Your task to perform on an android device: Clear the shopping cart on ebay. Add bose soundsport free to the cart on ebay, then select checkout. Image 0: 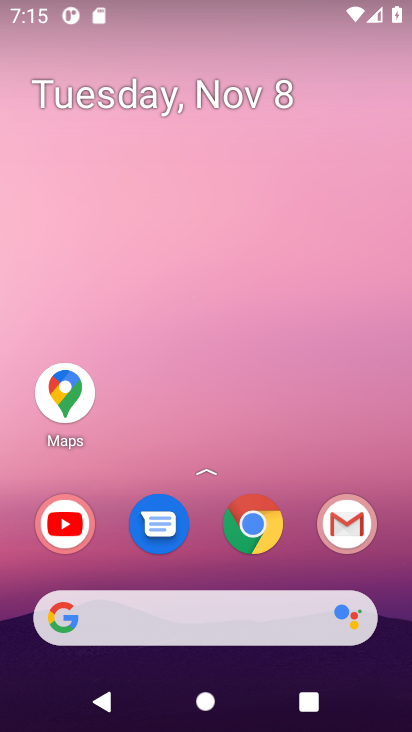
Step 0: click (256, 528)
Your task to perform on an android device: Clear the shopping cart on ebay. Add bose soundsport free to the cart on ebay, then select checkout. Image 1: 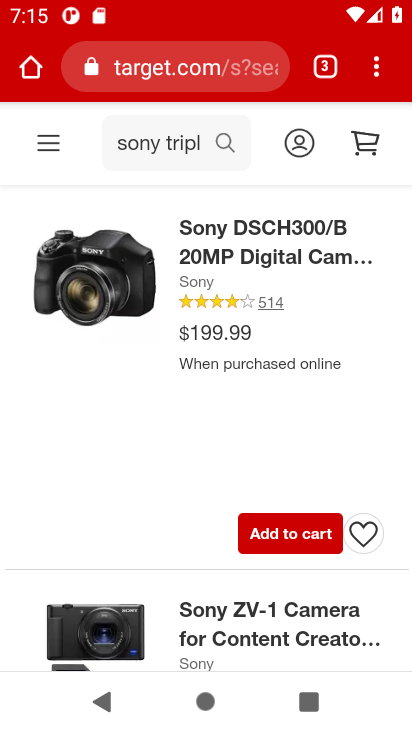
Step 1: click (171, 69)
Your task to perform on an android device: Clear the shopping cart on ebay. Add bose soundsport free to the cart on ebay, then select checkout. Image 2: 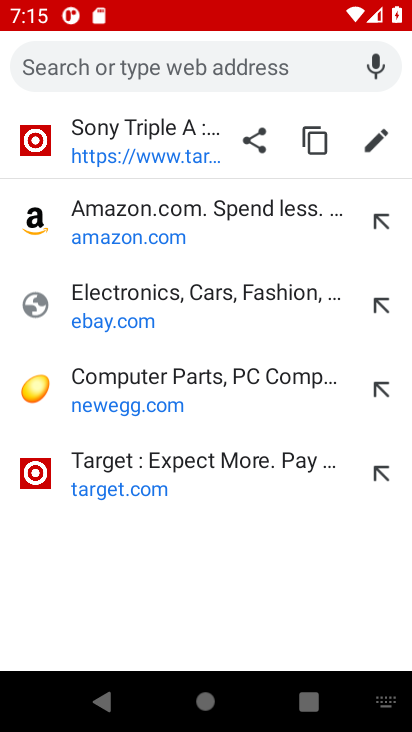
Step 2: click (102, 314)
Your task to perform on an android device: Clear the shopping cart on ebay. Add bose soundsport free to the cart on ebay, then select checkout. Image 3: 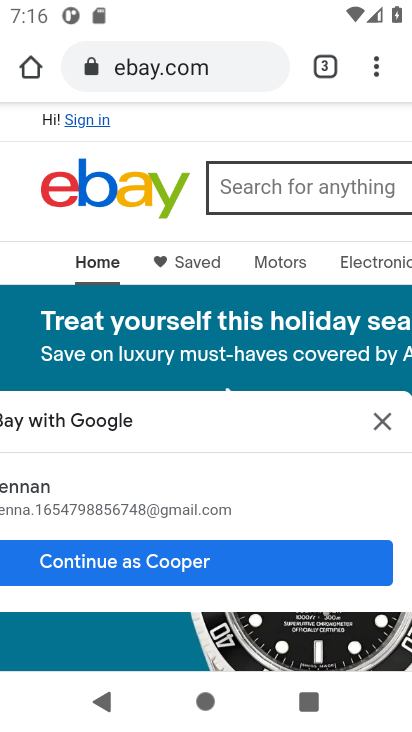
Step 3: drag from (295, 233) to (14, 201)
Your task to perform on an android device: Clear the shopping cart on ebay. Add bose soundsport free to the cart on ebay, then select checkout. Image 4: 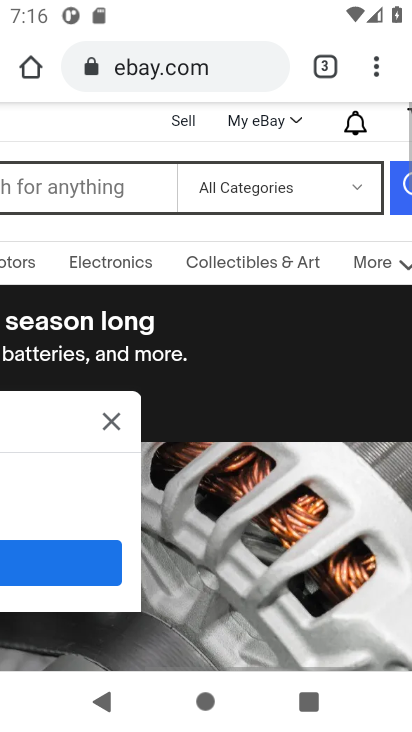
Step 4: drag from (306, 222) to (44, 218)
Your task to perform on an android device: Clear the shopping cart on ebay. Add bose soundsport free to the cart on ebay, then select checkout. Image 5: 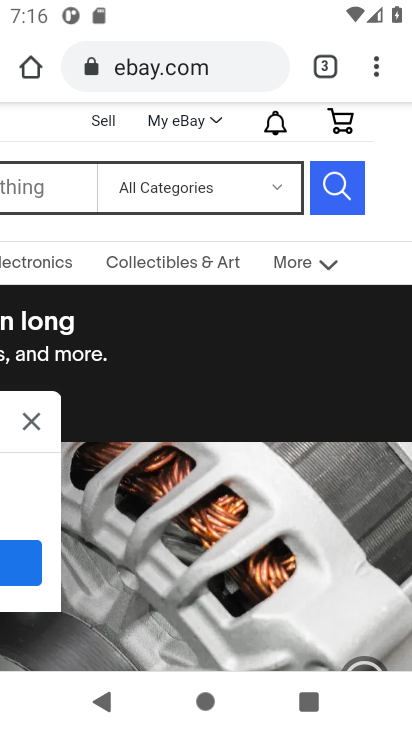
Step 5: click (343, 122)
Your task to perform on an android device: Clear the shopping cart on ebay. Add bose soundsport free to the cart on ebay, then select checkout. Image 6: 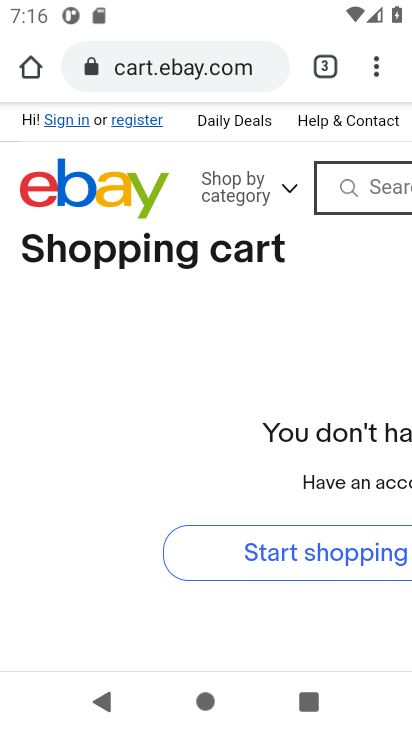
Step 6: drag from (334, 328) to (35, 330)
Your task to perform on an android device: Clear the shopping cart on ebay. Add bose soundsport free to the cart on ebay, then select checkout. Image 7: 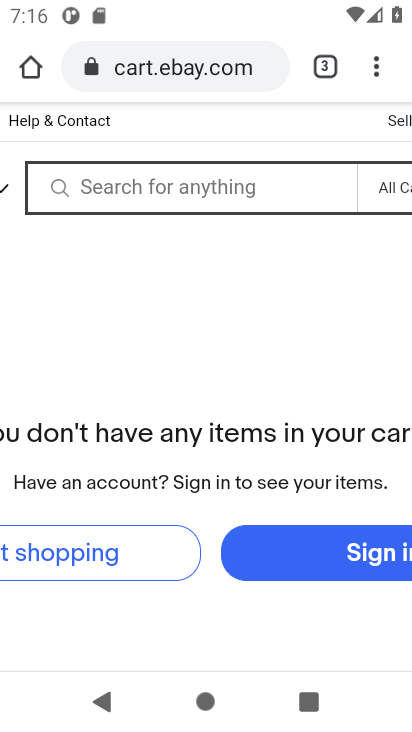
Step 7: click (154, 187)
Your task to perform on an android device: Clear the shopping cart on ebay. Add bose soundsport free to the cart on ebay, then select checkout. Image 8: 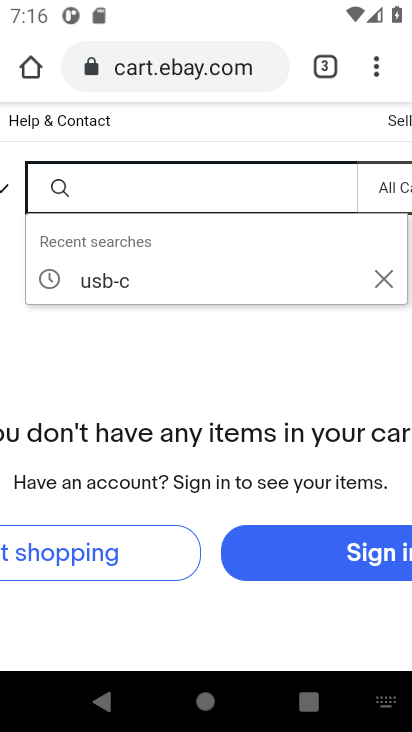
Step 8: type " bose soundsport free"
Your task to perform on an android device: Clear the shopping cart on ebay. Add bose soundsport free to the cart on ebay, then select checkout. Image 9: 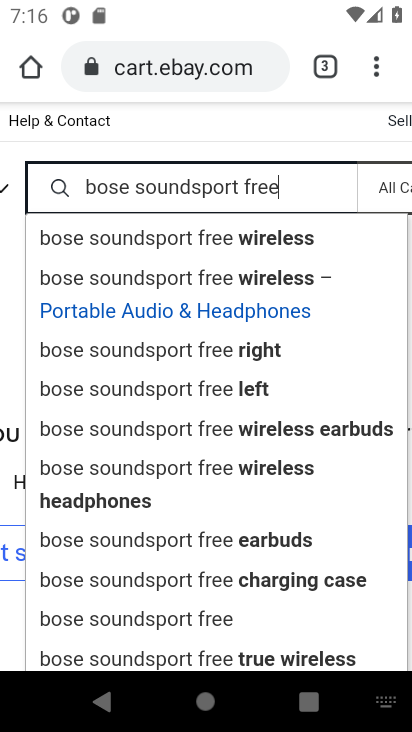
Step 9: click (136, 620)
Your task to perform on an android device: Clear the shopping cart on ebay. Add bose soundsport free to the cart on ebay, then select checkout. Image 10: 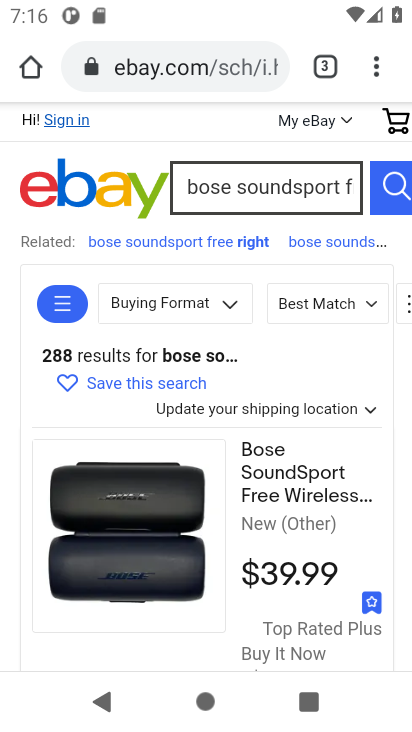
Step 10: click (154, 543)
Your task to perform on an android device: Clear the shopping cart on ebay. Add bose soundsport free to the cart on ebay, then select checkout. Image 11: 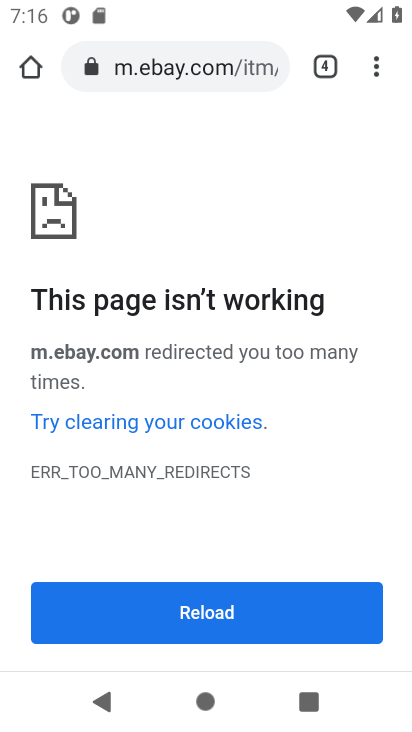
Step 11: task complete